Your task to perform on an android device: Go to Maps Image 0: 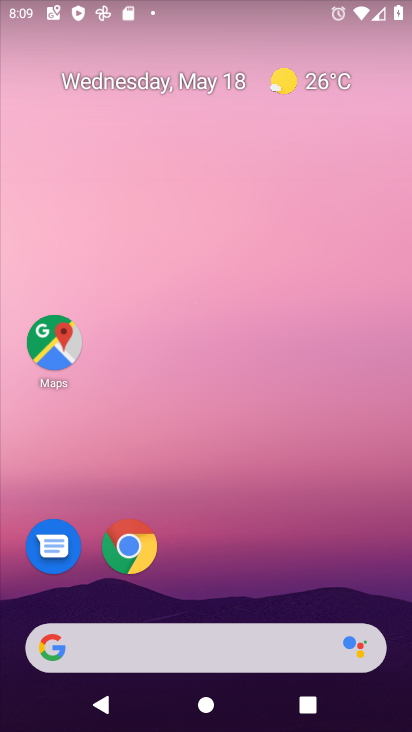
Step 0: drag from (387, 591) to (296, 113)
Your task to perform on an android device: Go to Maps Image 1: 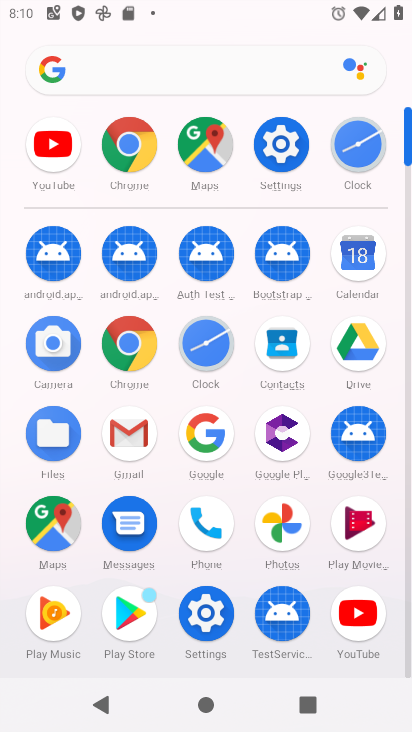
Step 1: click (194, 141)
Your task to perform on an android device: Go to Maps Image 2: 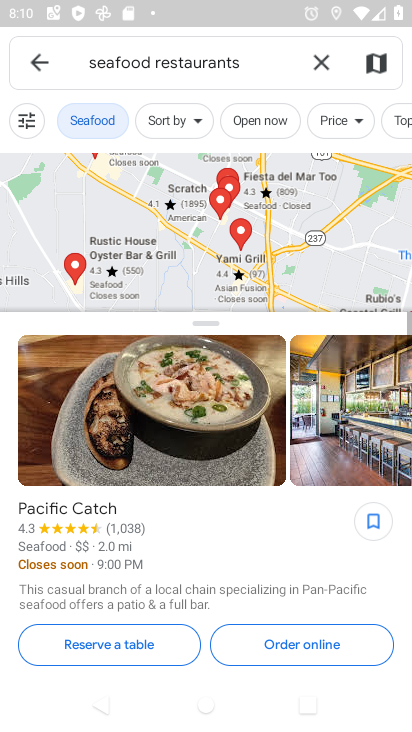
Step 2: click (314, 54)
Your task to perform on an android device: Go to Maps Image 3: 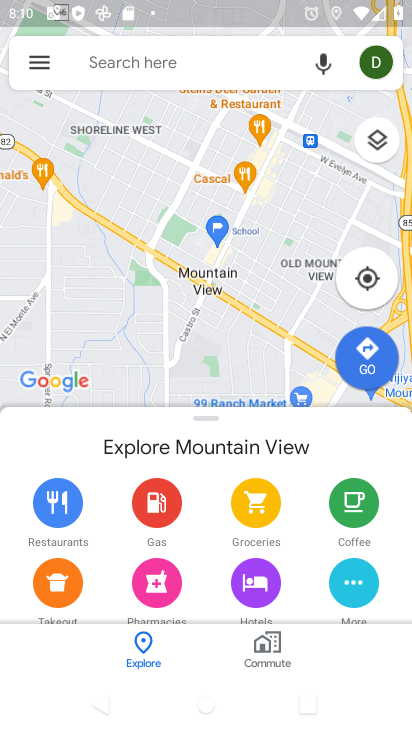
Step 3: task complete